Your task to perform on an android device: Open sound settings Image 0: 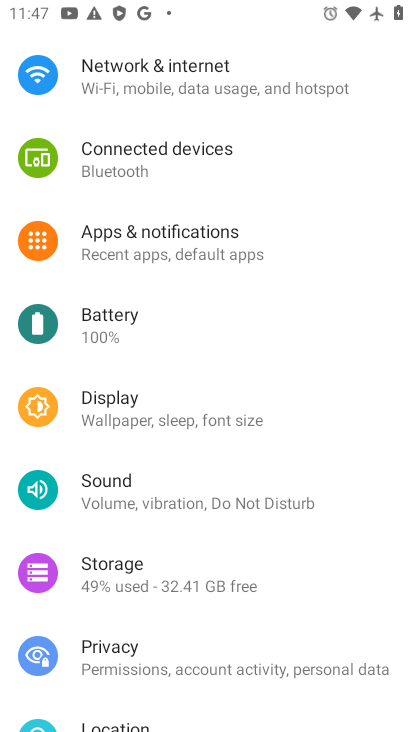
Step 0: click (120, 509)
Your task to perform on an android device: Open sound settings Image 1: 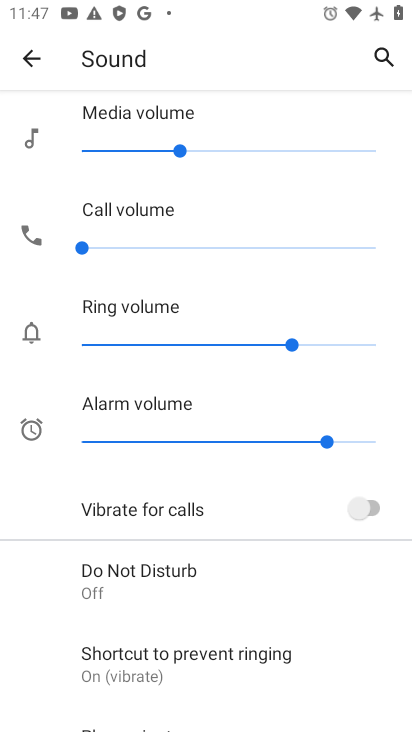
Step 1: click (120, 509)
Your task to perform on an android device: Open sound settings Image 2: 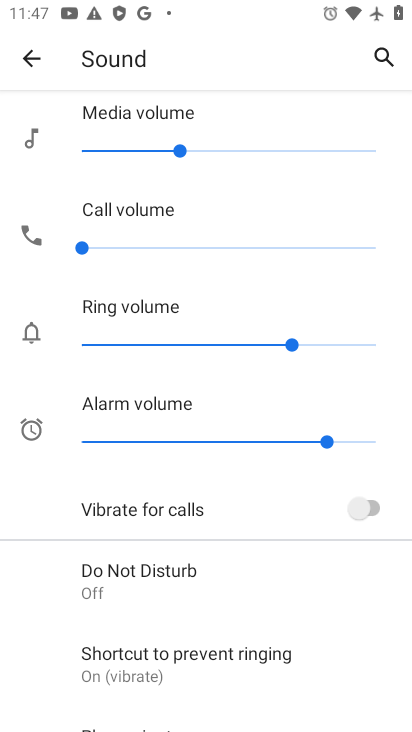
Step 2: task complete